Your task to perform on an android device: clear all cookies in the chrome app Image 0: 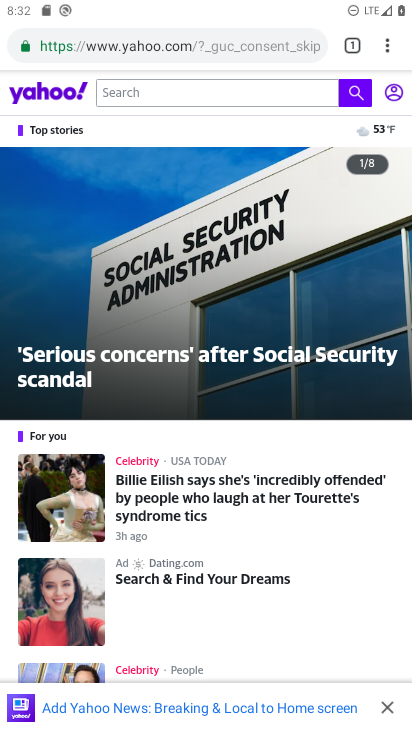
Step 0: press home button
Your task to perform on an android device: clear all cookies in the chrome app Image 1: 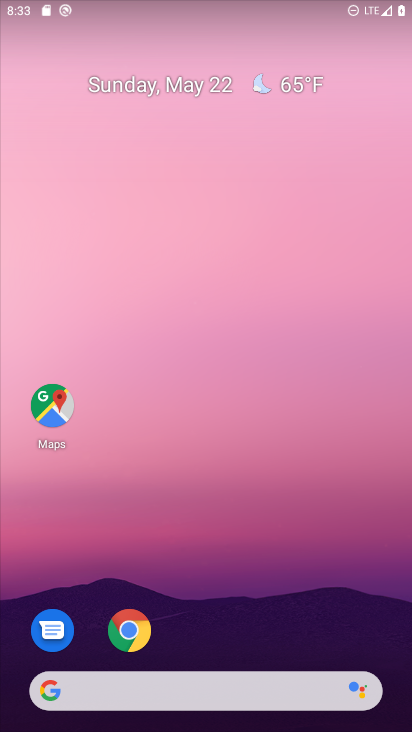
Step 1: drag from (139, 682) to (271, 348)
Your task to perform on an android device: clear all cookies in the chrome app Image 2: 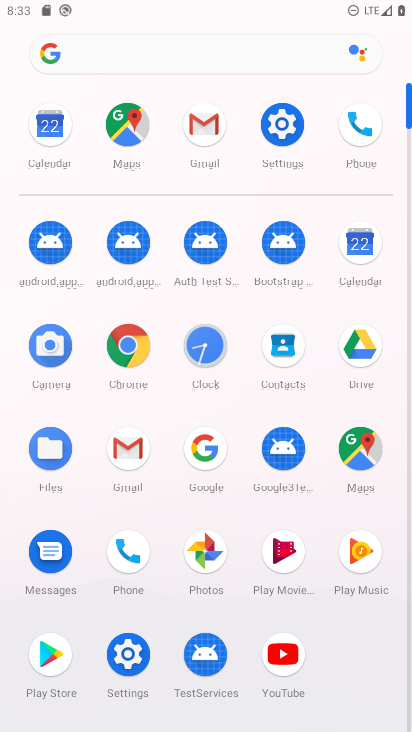
Step 2: click (127, 347)
Your task to perform on an android device: clear all cookies in the chrome app Image 3: 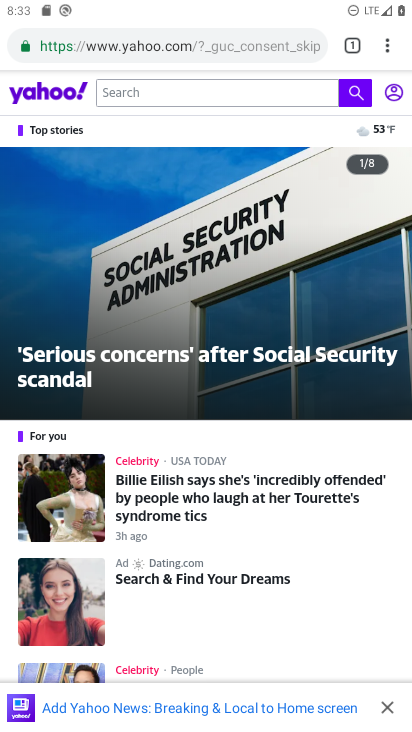
Step 3: drag from (389, 46) to (270, 542)
Your task to perform on an android device: clear all cookies in the chrome app Image 4: 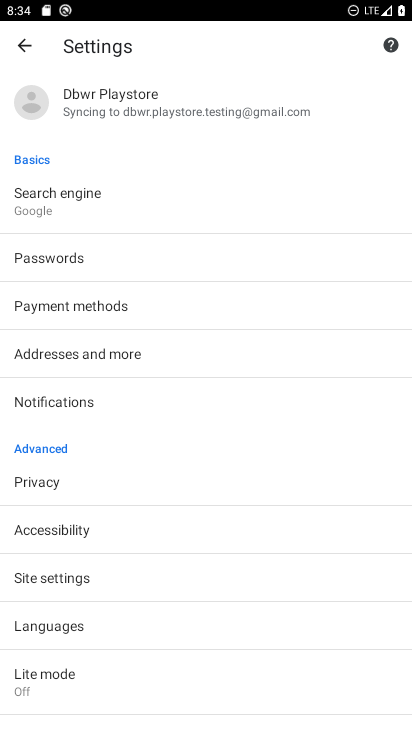
Step 4: click (46, 477)
Your task to perform on an android device: clear all cookies in the chrome app Image 5: 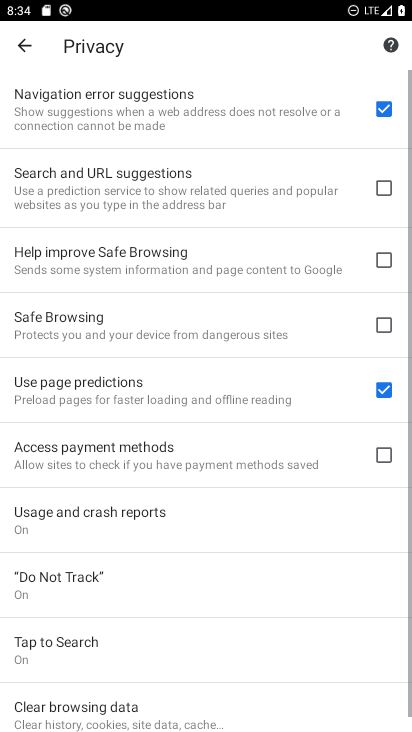
Step 5: drag from (167, 571) to (319, 126)
Your task to perform on an android device: clear all cookies in the chrome app Image 6: 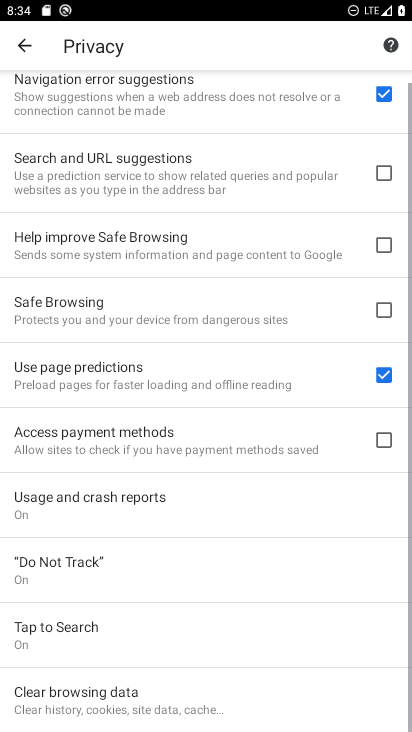
Step 6: click (148, 689)
Your task to perform on an android device: clear all cookies in the chrome app Image 7: 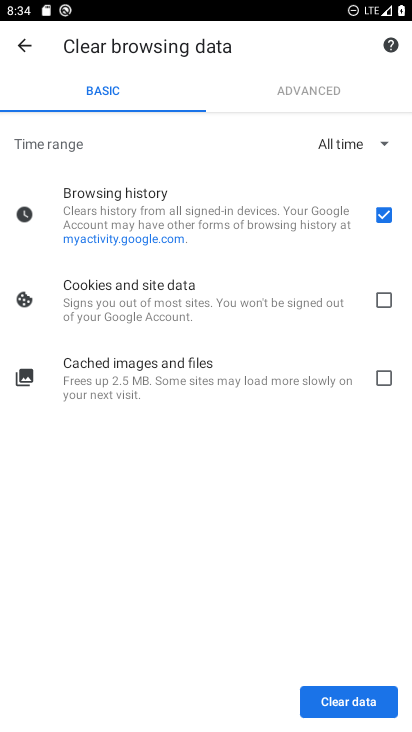
Step 7: click (376, 298)
Your task to perform on an android device: clear all cookies in the chrome app Image 8: 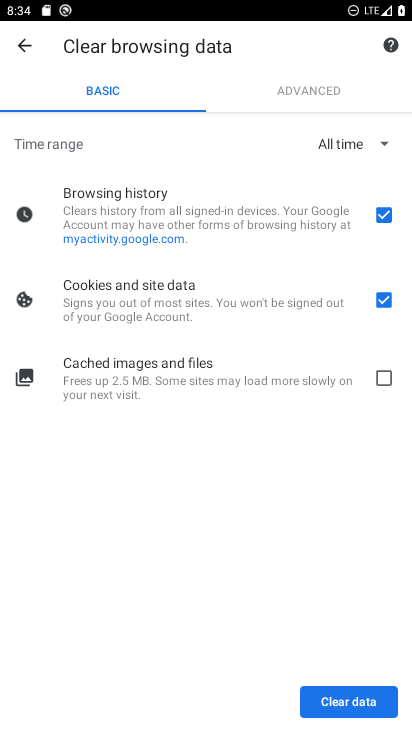
Step 8: click (381, 221)
Your task to perform on an android device: clear all cookies in the chrome app Image 9: 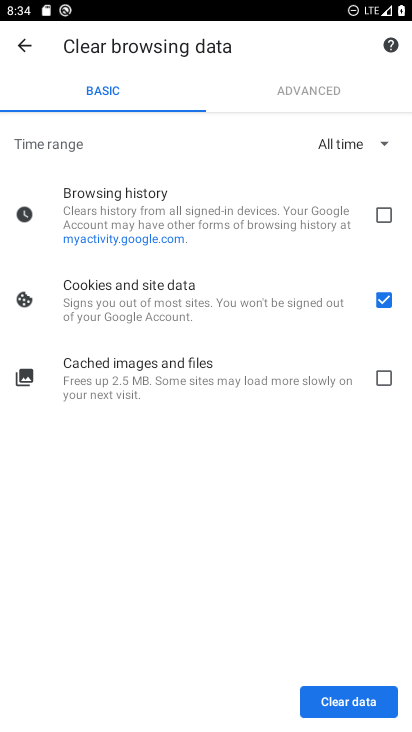
Step 9: click (346, 701)
Your task to perform on an android device: clear all cookies in the chrome app Image 10: 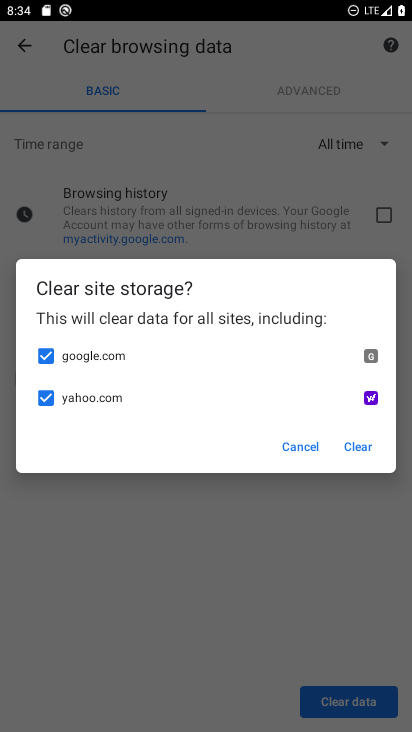
Step 10: click (361, 440)
Your task to perform on an android device: clear all cookies in the chrome app Image 11: 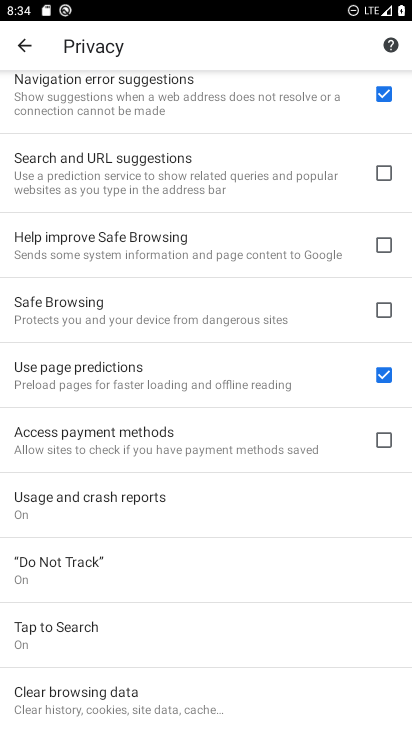
Step 11: task complete